Your task to perform on an android device: change notifications settings Image 0: 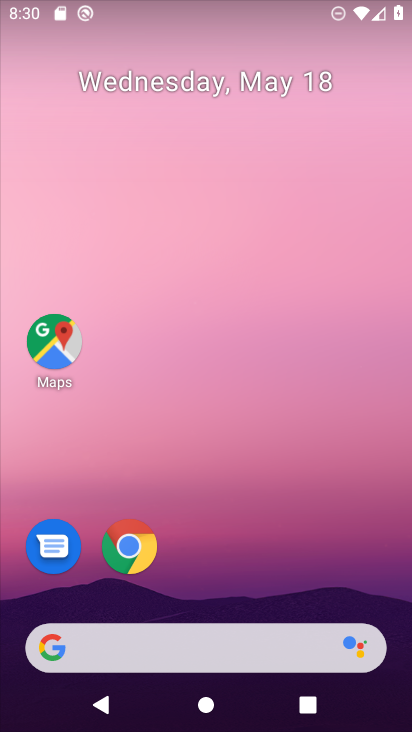
Step 0: drag from (174, 670) to (270, 280)
Your task to perform on an android device: change notifications settings Image 1: 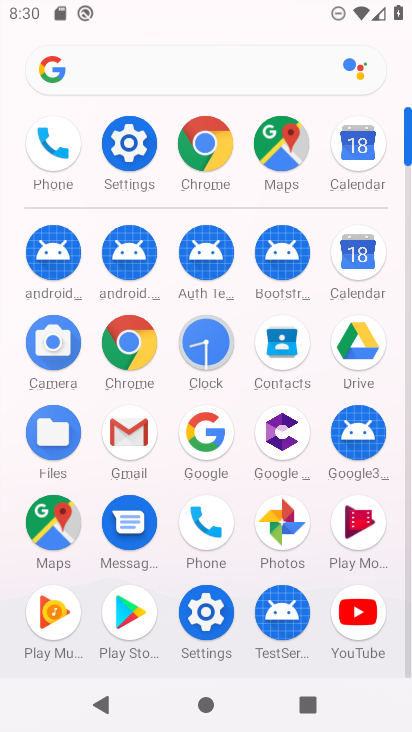
Step 1: click (114, 161)
Your task to perform on an android device: change notifications settings Image 2: 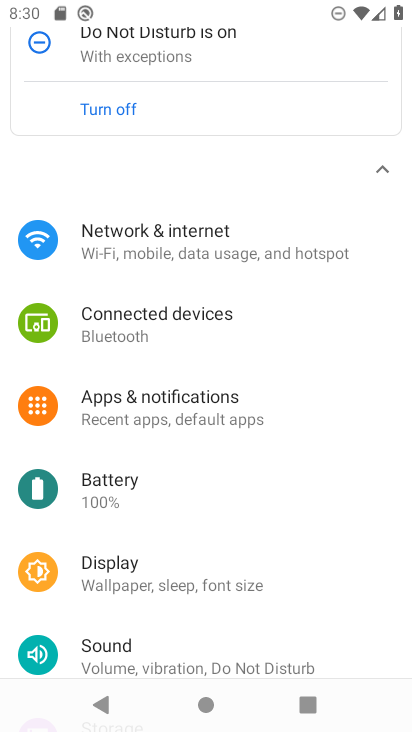
Step 2: drag from (141, 198) to (135, 446)
Your task to perform on an android device: change notifications settings Image 3: 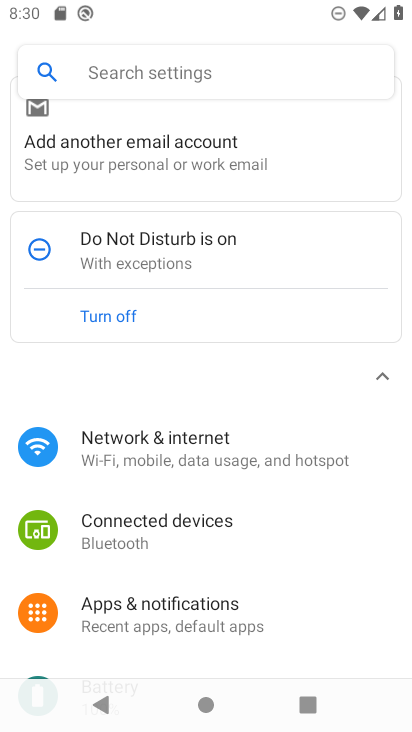
Step 3: click (142, 76)
Your task to perform on an android device: change notifications settings Image 4: 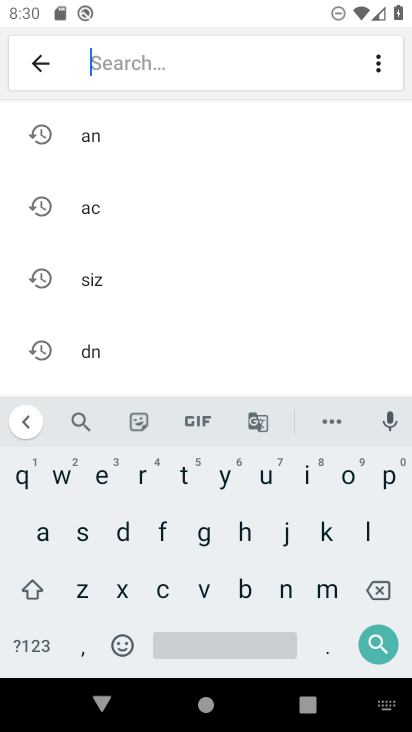
Step 4: click (287, 588)
Your task to perform on an android device: change notifications settings Image 5: 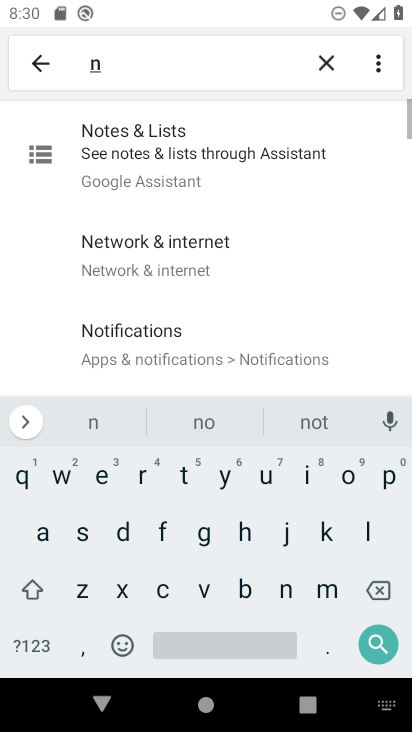
Step 5: click (351, 486)
Your task to perform on an android device: change notifications settings Image 6: 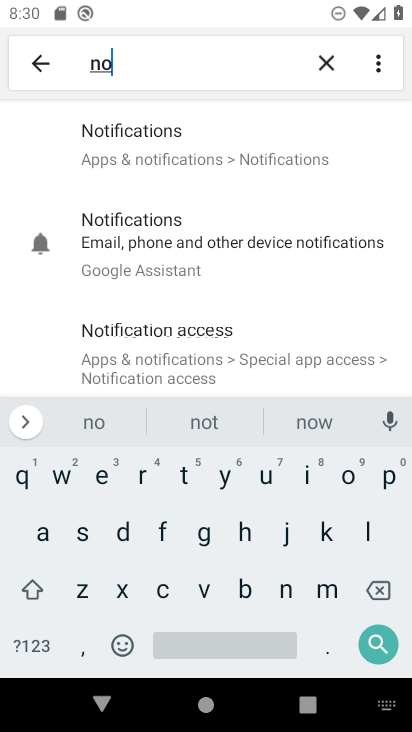
Step 6: click (179, 148)
Your task to perform on an android device: change notifications settings Image 7: 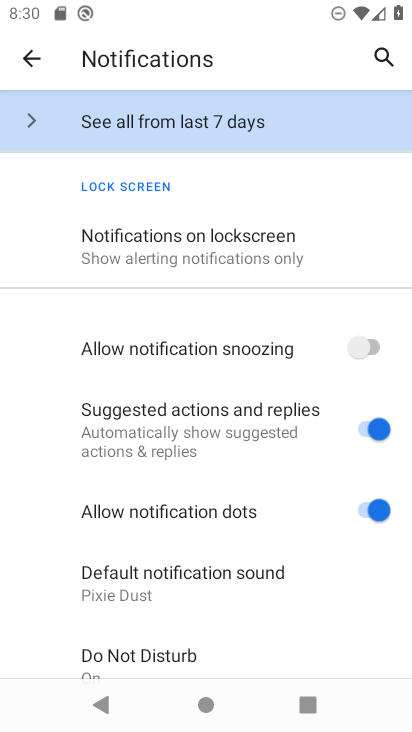
Step 7: click (170, 245)
Your task to perform on an android device: change notifications settings Image 8: 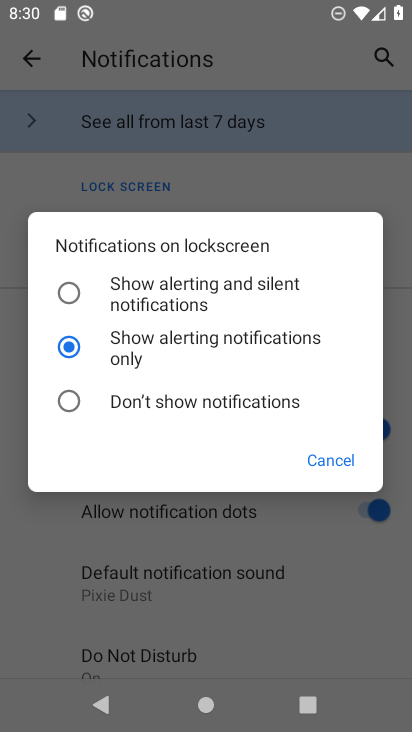
Step 8: click (125, 278)
Your task to perform on an android device: change notifications settings Image 9: 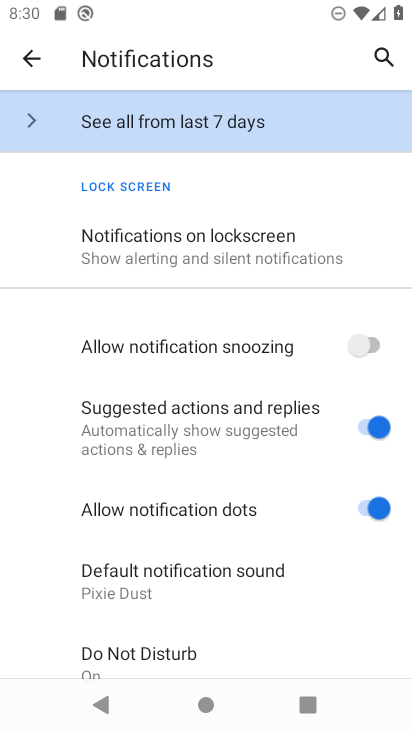
Step 9: task complete